Your task to perform on an android device: Open CNN.com Image 0: 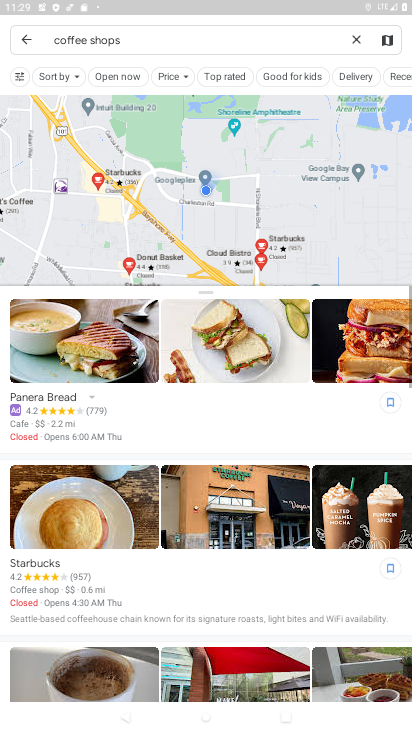
Step 0: press home button
Your task to perform on an android device: Open CNN.com Image 1: 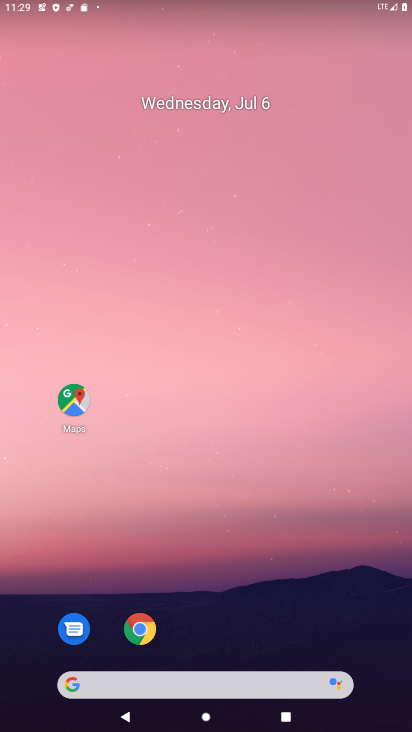
Step 1: click (150, 613)
Your task to perform on an android device: Open CNN.com Image 2: 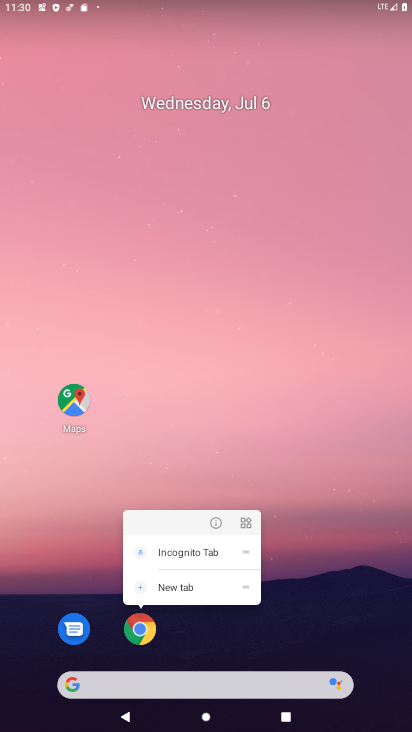
Step 2: click (142, 622)
Your task to perform on an android device: Open CNN.com Image 3: 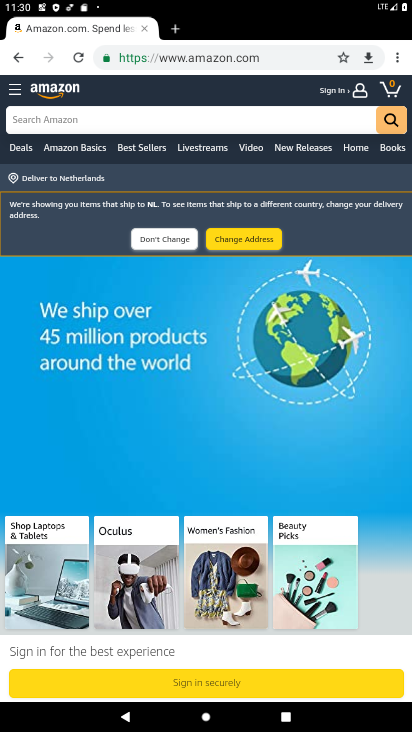
Step 3: click (170, 31)
Your task to perform on an android device: Open CNN.com Image 4: 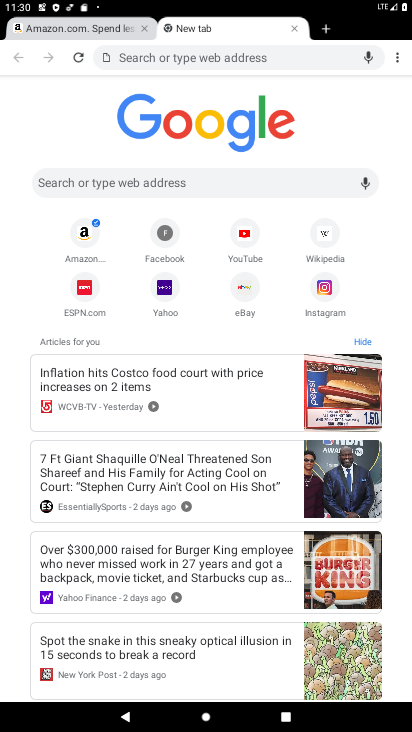
Step 4: click (150, 187)
Your task to perform on an android device: Open CNN.com Image 5: 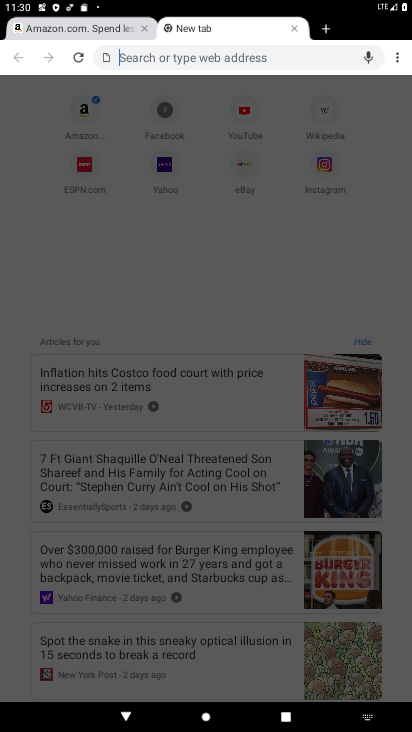
Step 5: type "CNN.com"
Your task to perform on an android device: Open CNN.com Image 6: 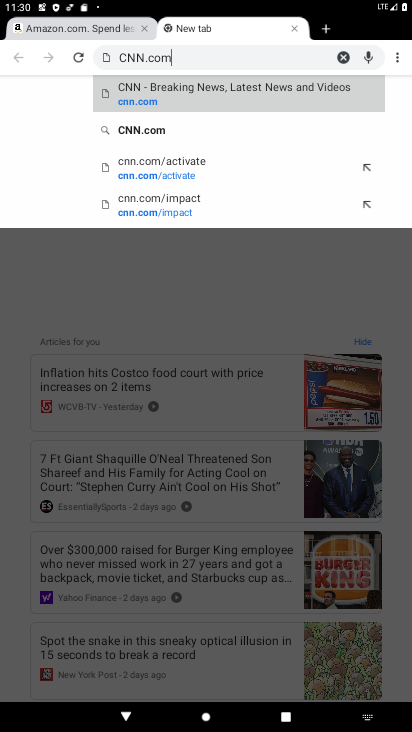
Step 6: click (183, 100)
Your task to perform on an android device: Open CNN.com Image 7: 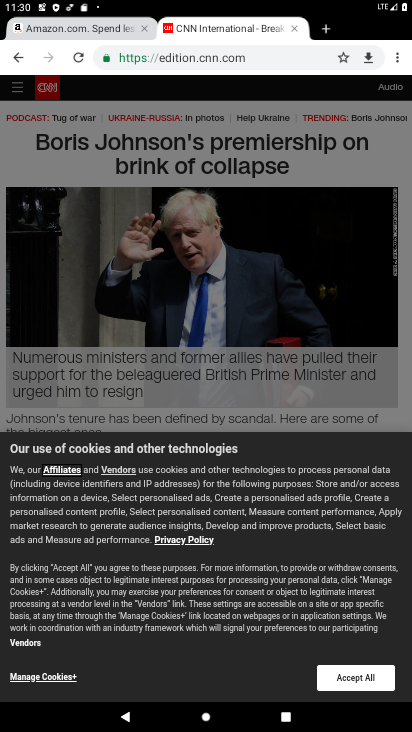
Step 7: task complete